Your task to perform on an android device: Check the news Image 0: 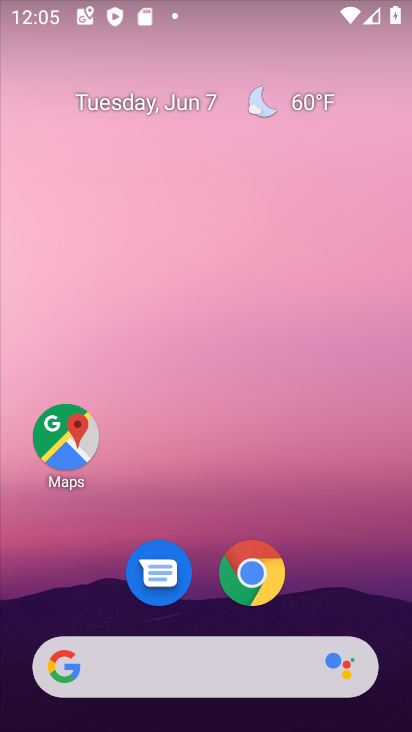
Step 0: press home button
Your task to perform on an android device: Check the news Image 1: 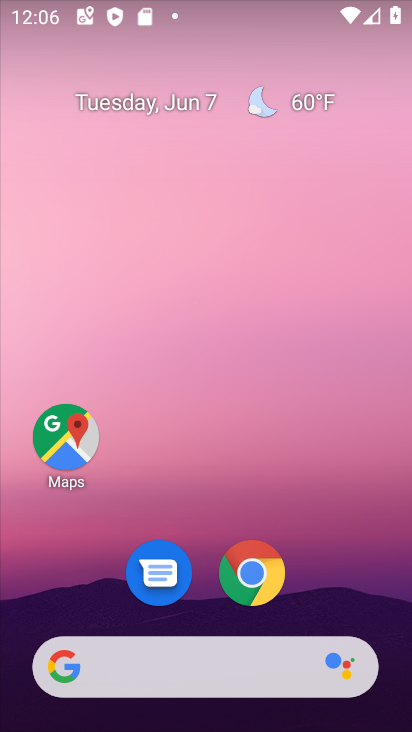
Step 1: click (231, 572)
Your task to perform on an android device: Check the news Image 2: 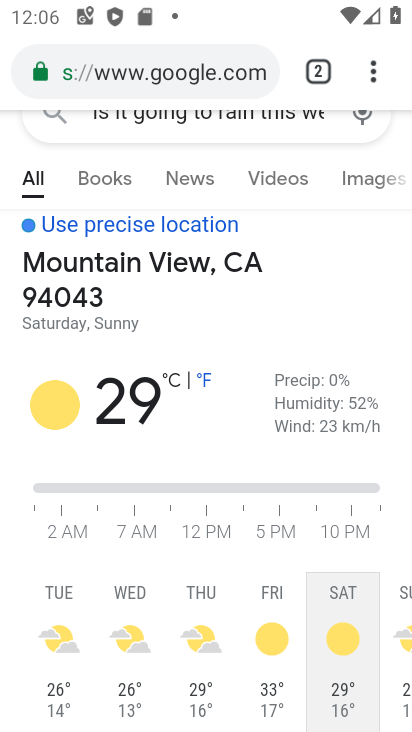
Step 2: click (182, 63)
Your task to perform on an android device: Check the news Image 3: 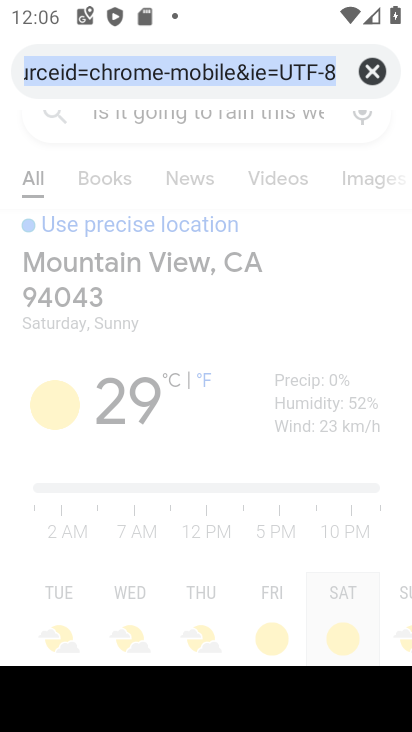
Step 3: type "Check the news"
Your task to perform on an android device: Check the news Image 4: 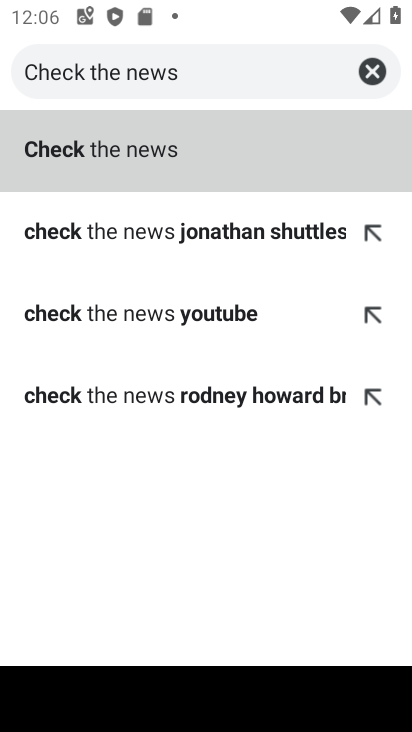
Step 4: click (226, 155)
Your task to perform on an android device: Check the news Image 5: 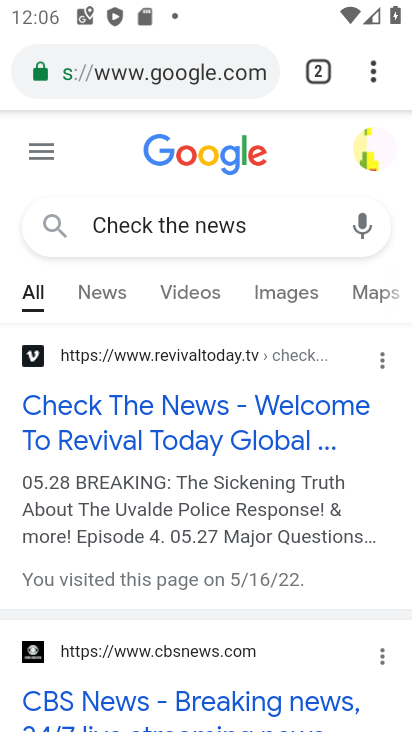
Step 5: task complete